Your task to perform on an android device: turn off airplane mode Image 0: 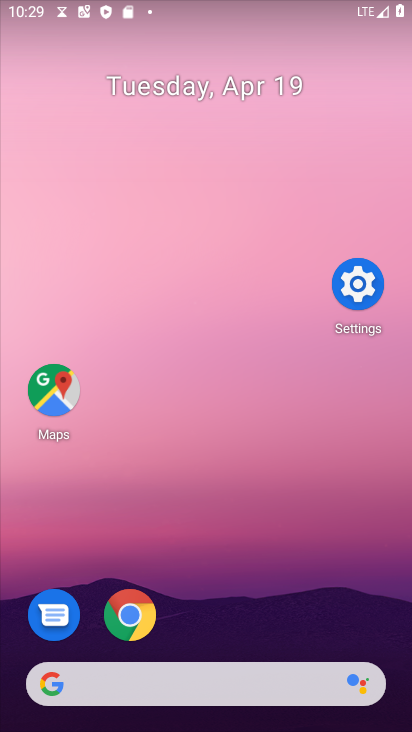
Step 0: drag from (225, 571) to (255, 68)
Your task to perform on an android device: turn off airplane mode Image 1: 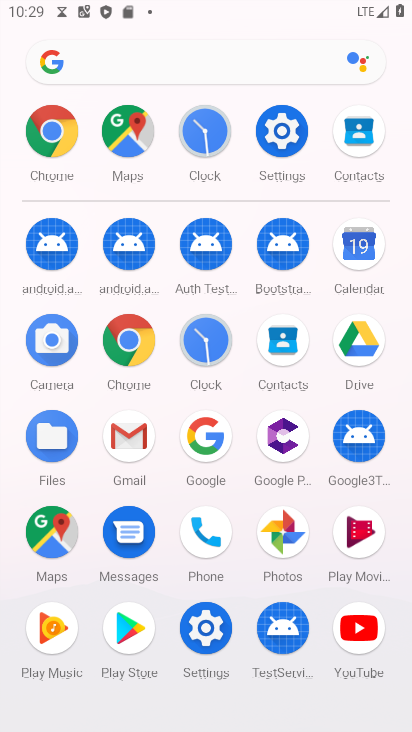
Step 1: click (204, 623)
Your task to perform on an android device: turn off airplane mode Image 2: 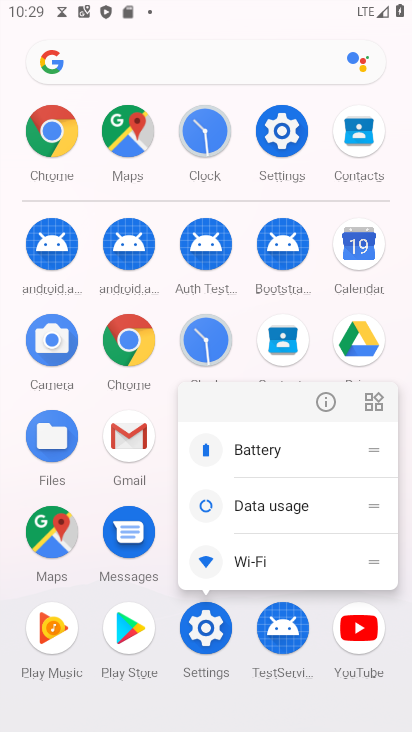
Step 2: click (331, 405)
Your task to perform on an android device: turn off airplane mode Image 3: 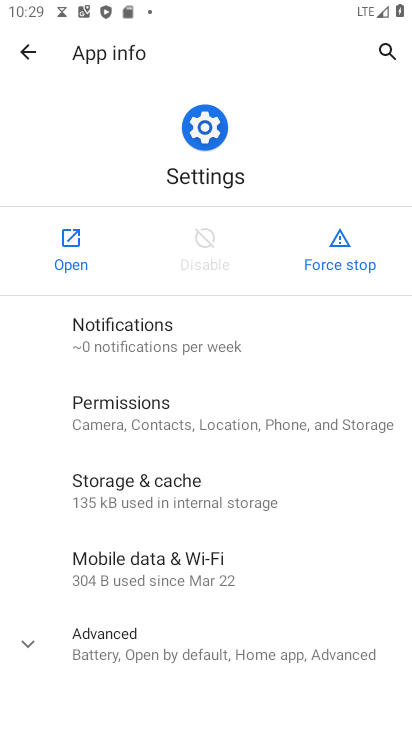
Step 3: click (73, 238)
Your task to perform on an android device: turn off airplane mode Image 4: 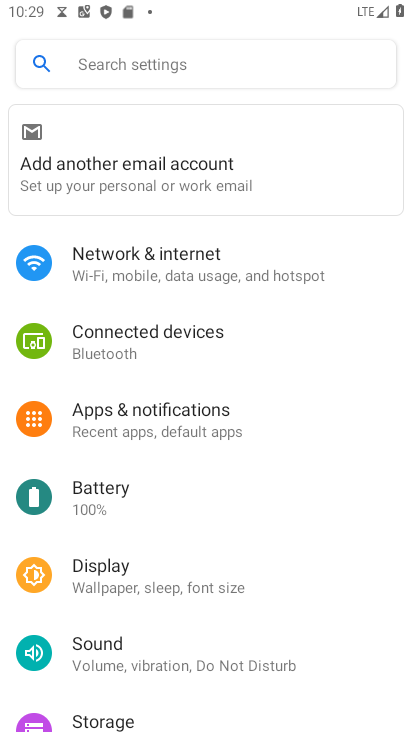
Step 4: click (158, 266)
Your task to perform on an android device: turn off airplane mode Image 5: 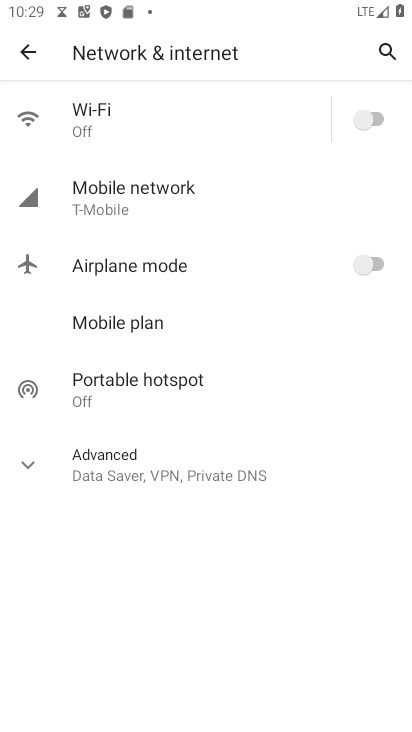
Step 5: task complete